Your task to perform on an android device: Open Google Image 0: 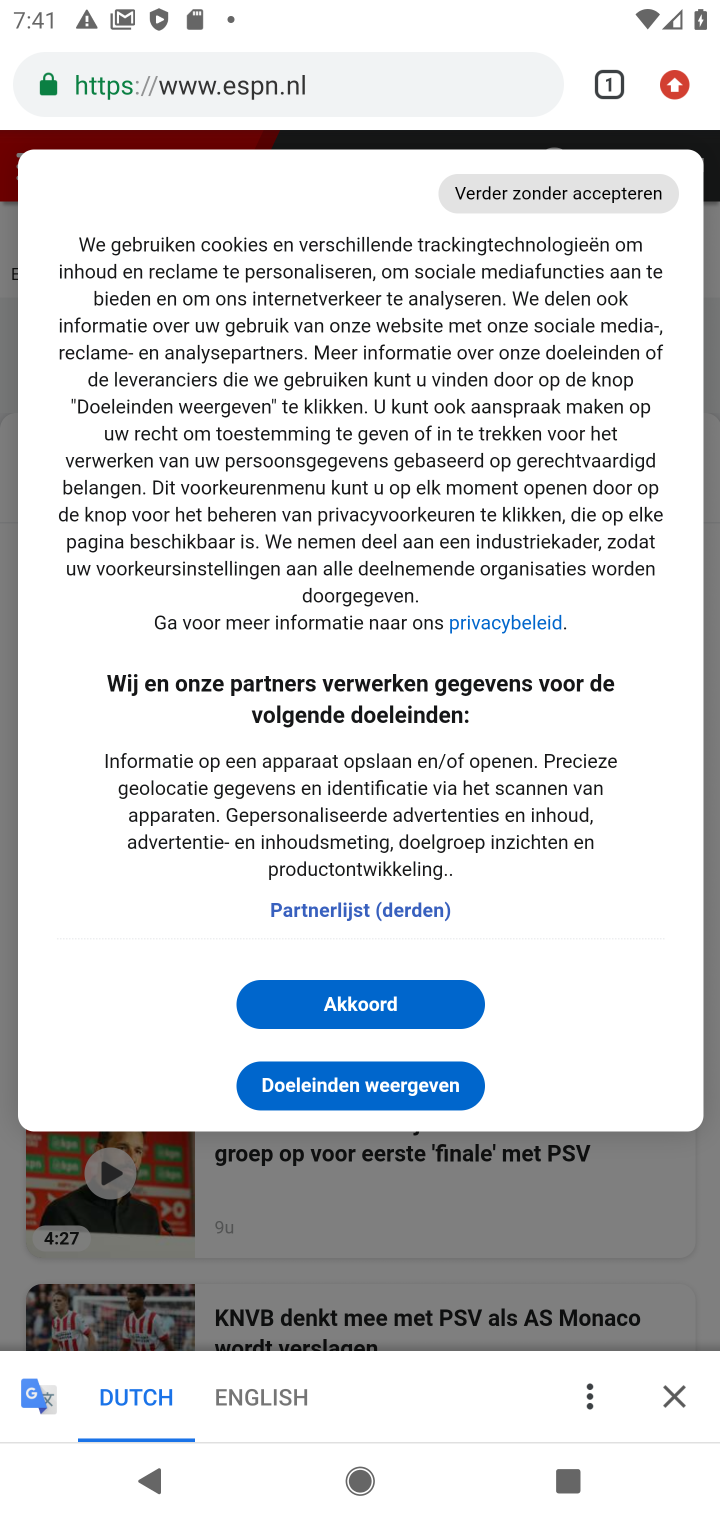
Step 0: press home button
Your task to perform on an android device: Open Google Image 1: 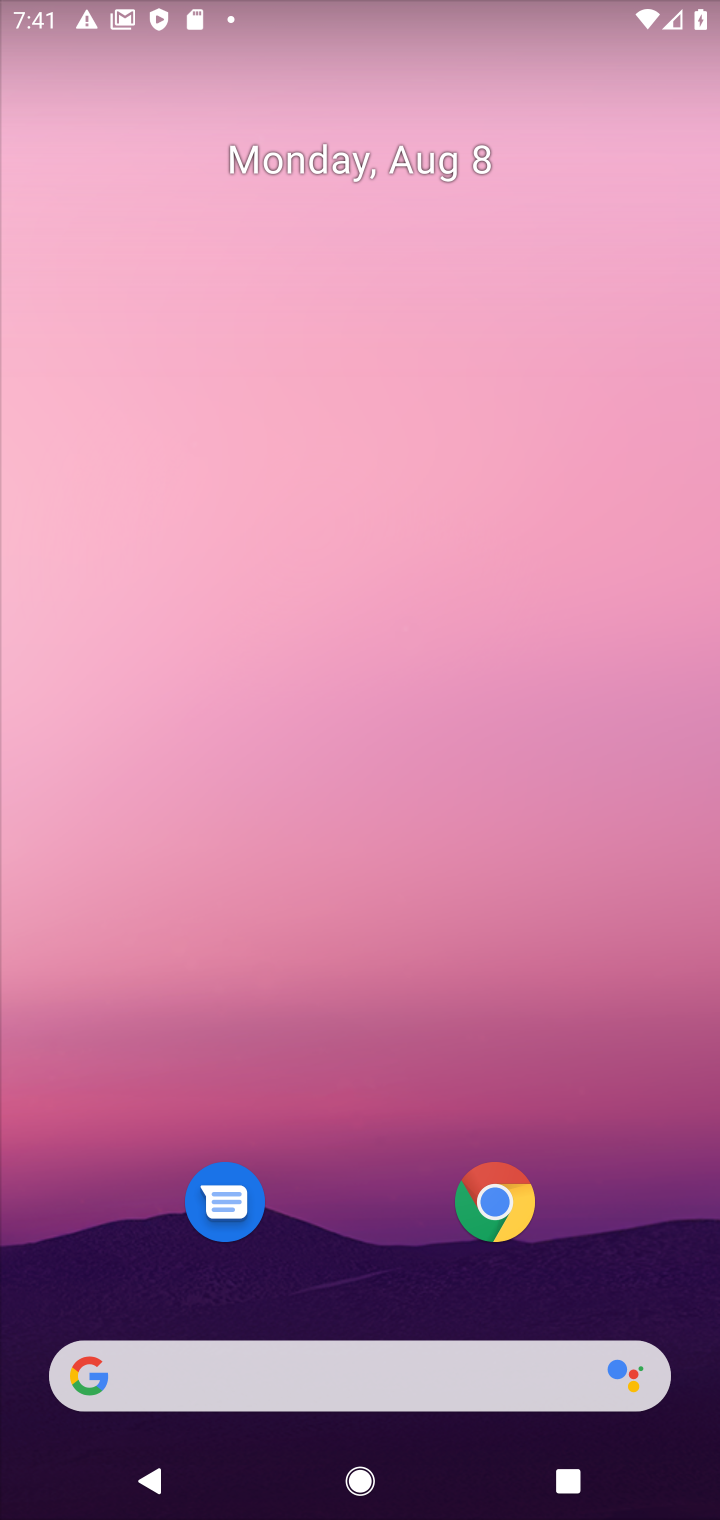
Step 1: click (458, 287)
Your task to perform on an android device: Open Google Image 2: 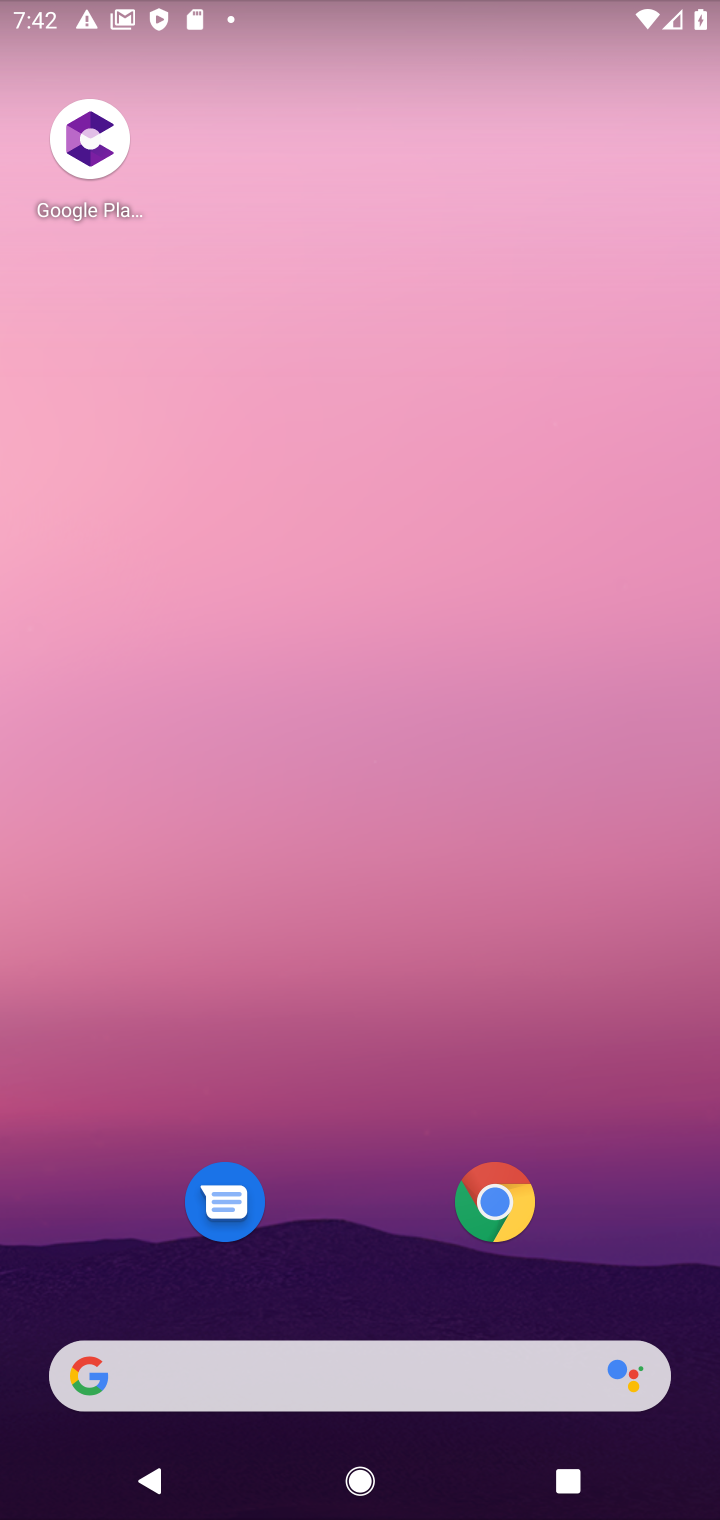
Step 2: drag from (476, 1138) to (476, 38)
Your task to perform on an android device: Open Google Image 3: 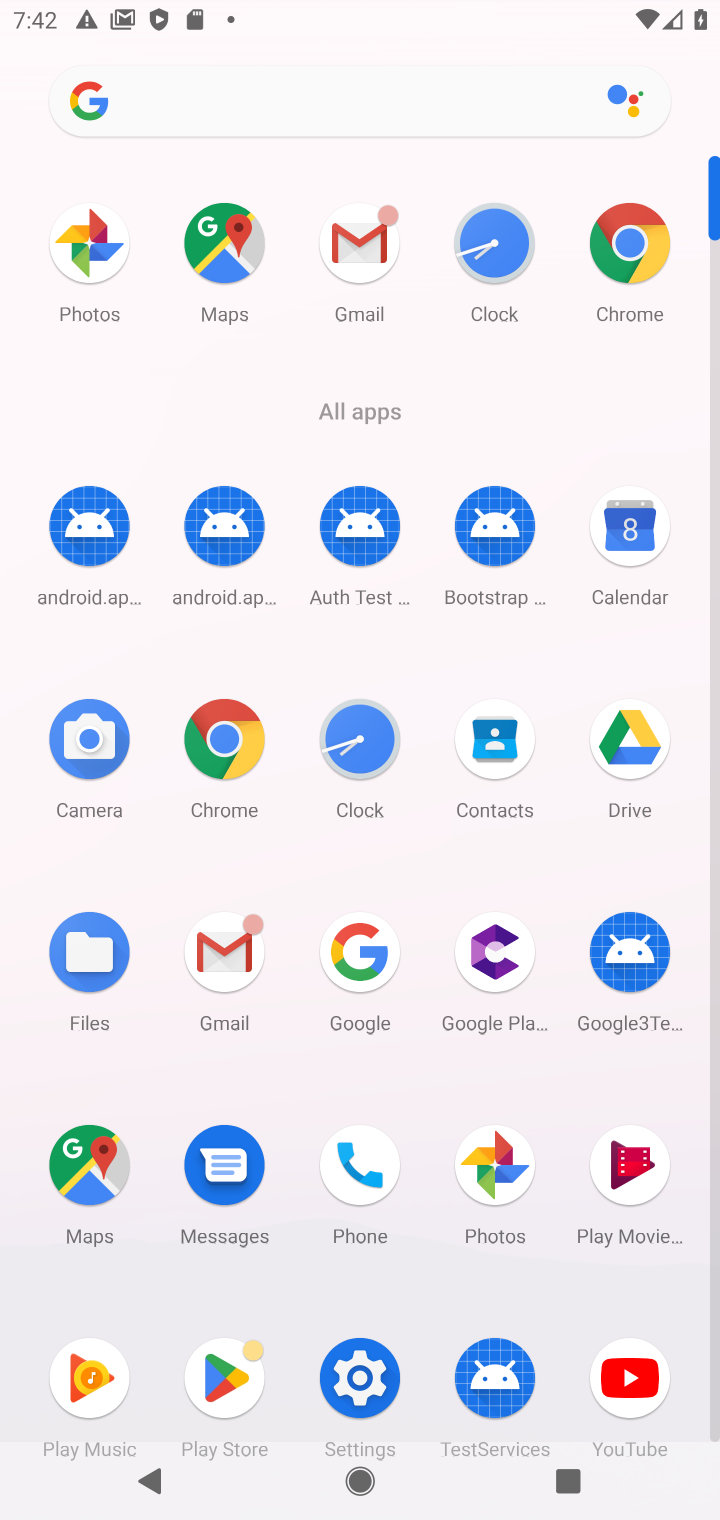
Step 3: click (358, 991)
Your task to perform on an android device: Open Google Image 4: 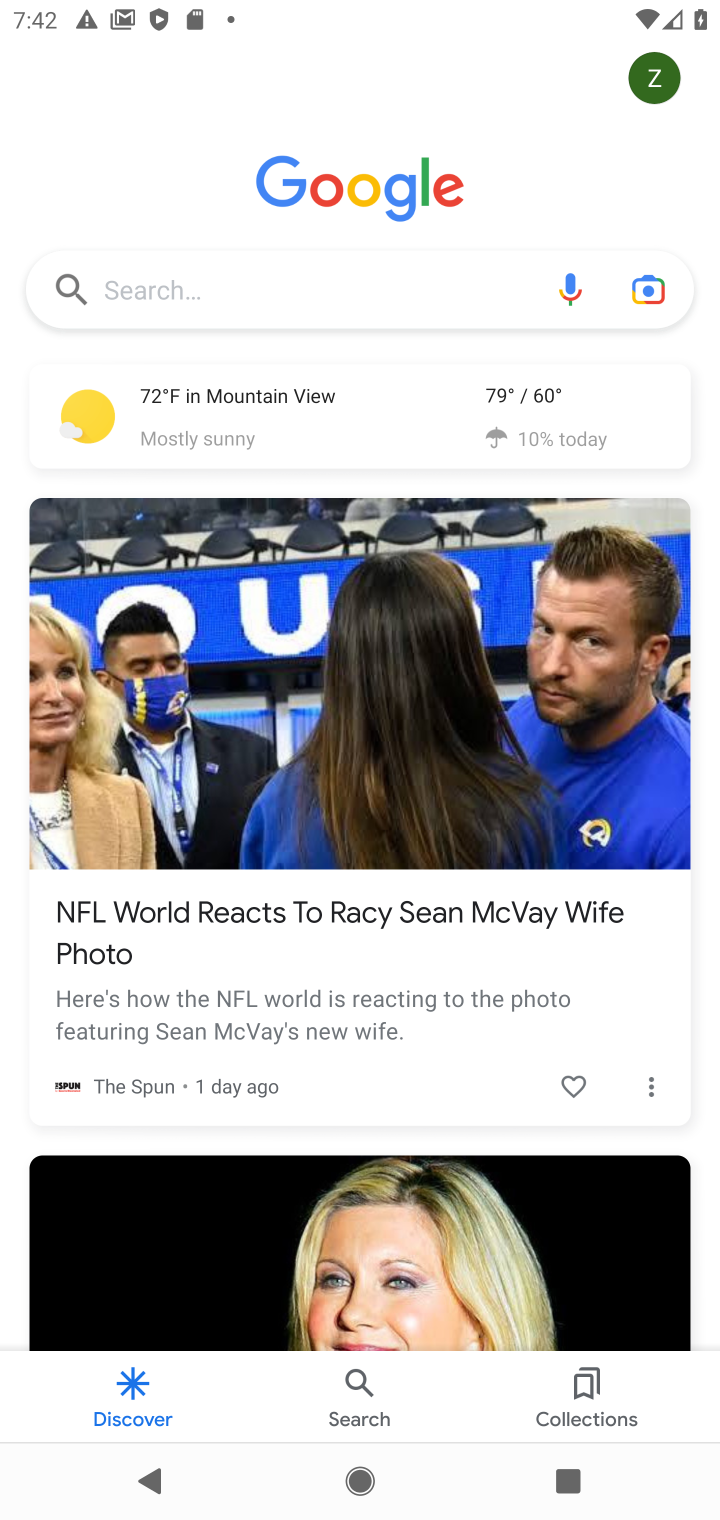
Step 4: task complete